Your task to perform on an android device: Go to Maps Image 0: 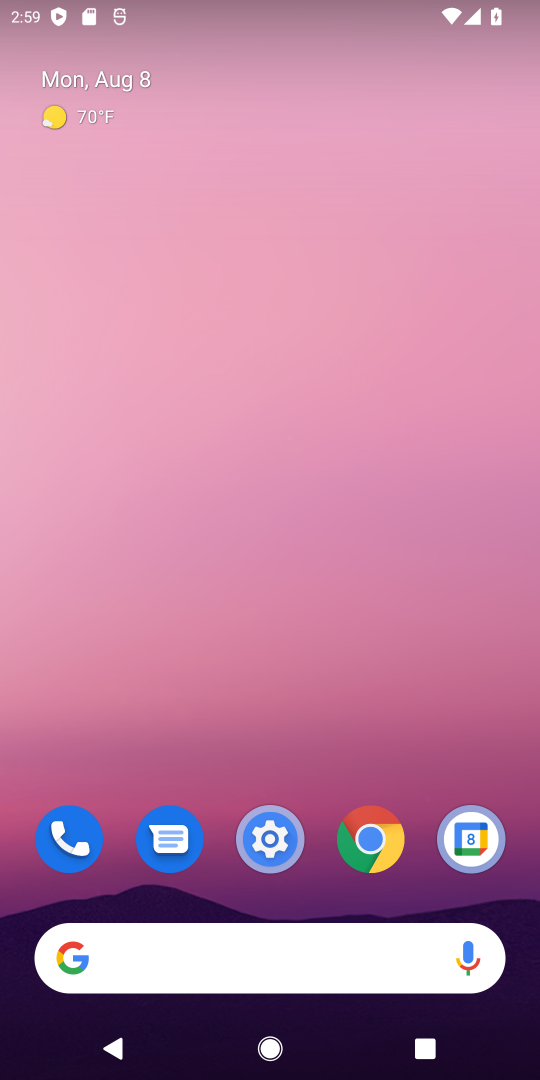
Step 0: press home button
Your task to perform on an android device: Go to Maps Image 1: 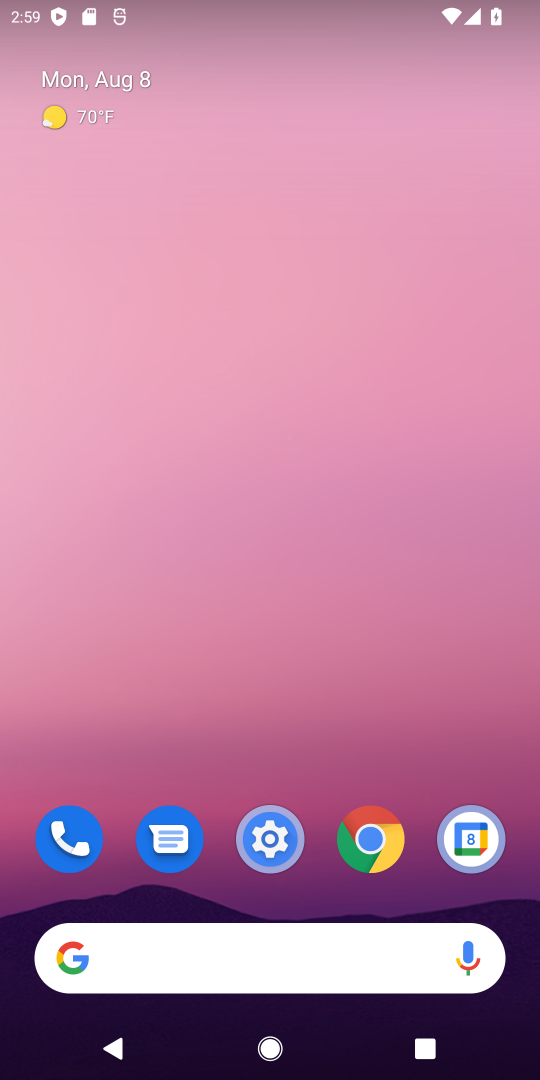
Step 1: drag from (423, 715) to (449, 252)
Your task to perform on an android device: Go to Maps Image 2: 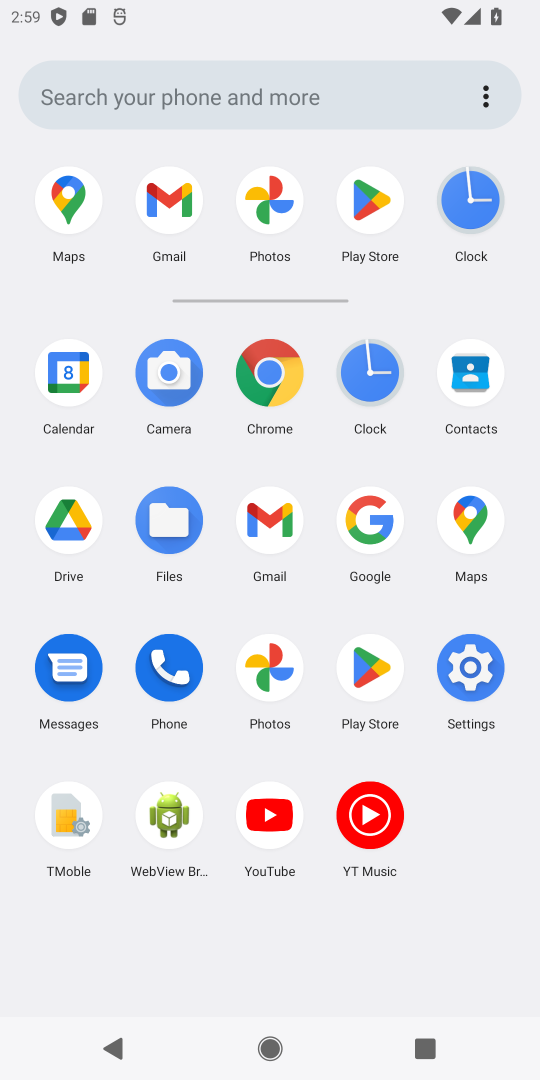
Step 2: click (468, 506)
Your task to perform on an android device: Go to Maps Image 3: 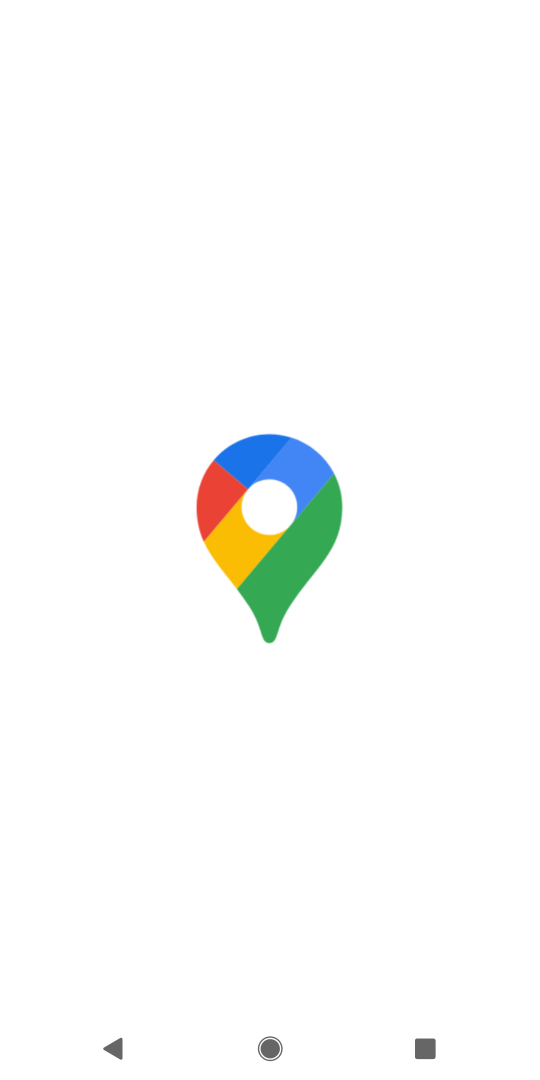
Step 3: task complete